Your task to perform on an android device: Open maps Image 0: 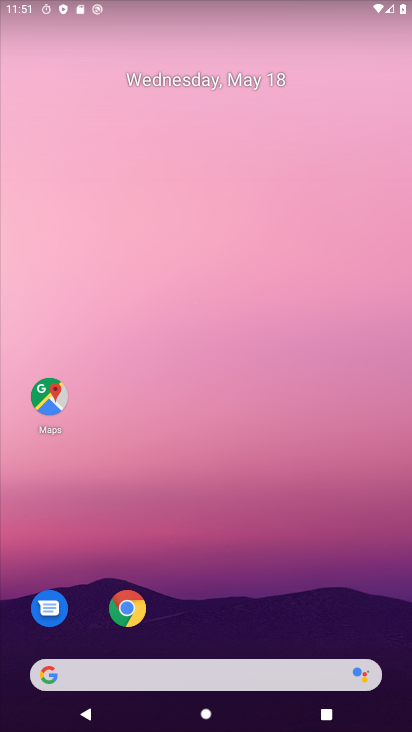
Step 0: click (45, 389)
Your task to perform on an android device: Open maps Image 1: 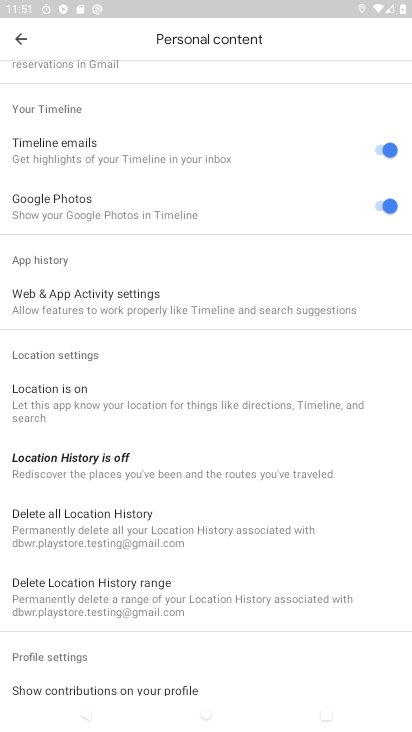
Step 1: click (22, 38)
Your task to perform on an android device: Open maps Image 2: 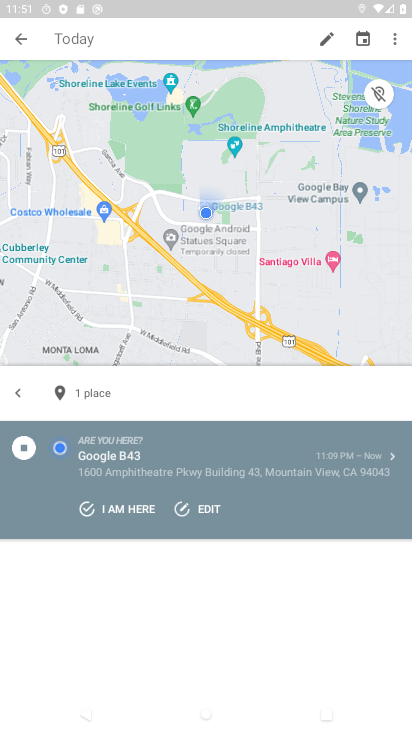
Step 2: click (22, 40)
Your task to perform on an android device: Open maps Image 3: 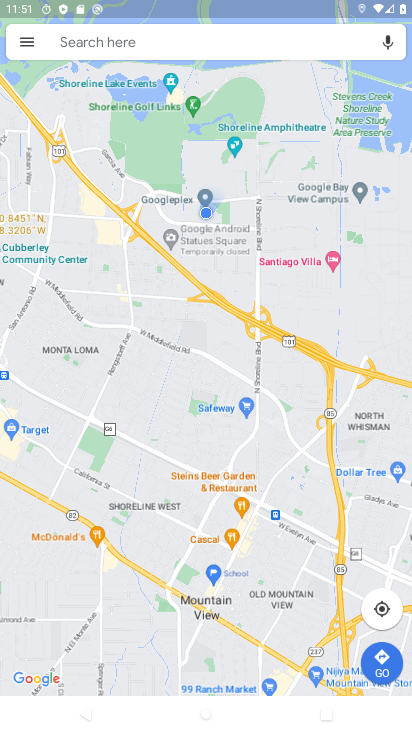
Step 3: task complete